Your task to perform on an android device: empty trash in google photos Image 0: 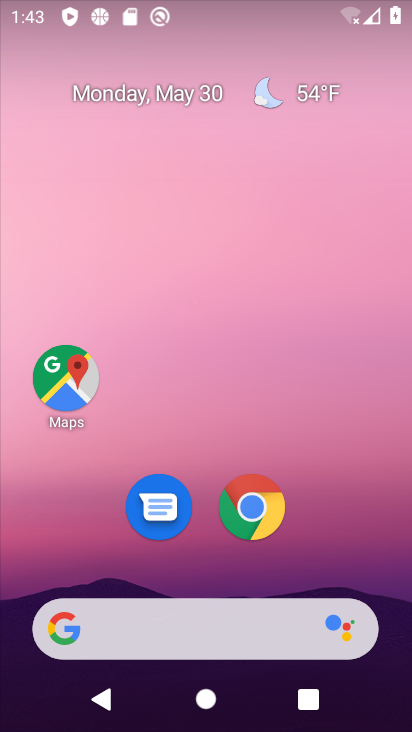
Step 0: drag from (388, 637) to (283, 10)
Your task to perform on an android device: empty trash in google photos Image 1: 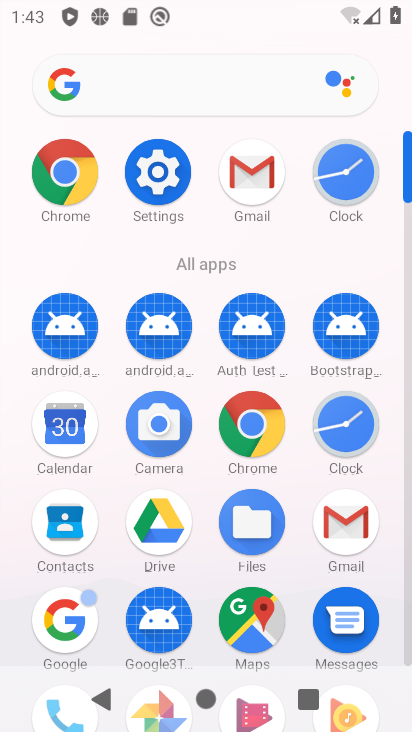
Step 1: drag from (258, 612) to (260, 174)
Your task to perform on an android device: empty trash in google photos Image 2: 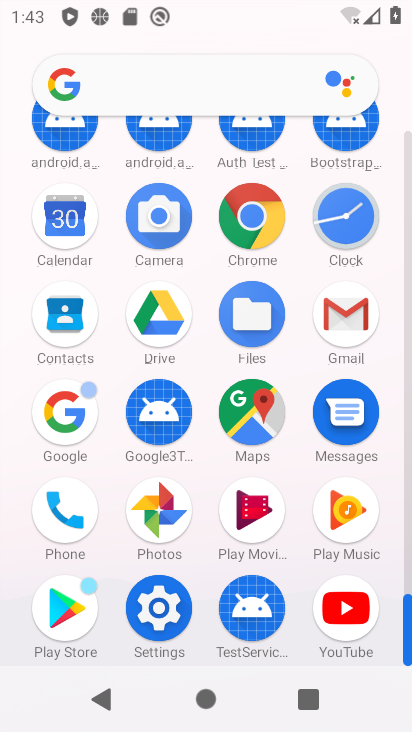
Step 2: click (157, 503)
Your task to perform on an android device: empty trash in google photos Image 3: 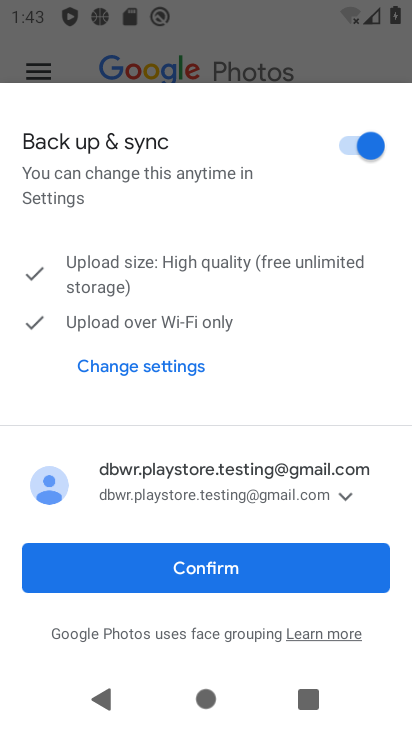
Step 3: click (236, 567)
Your task to perform on an android device: empty trash in google photos Image 4: 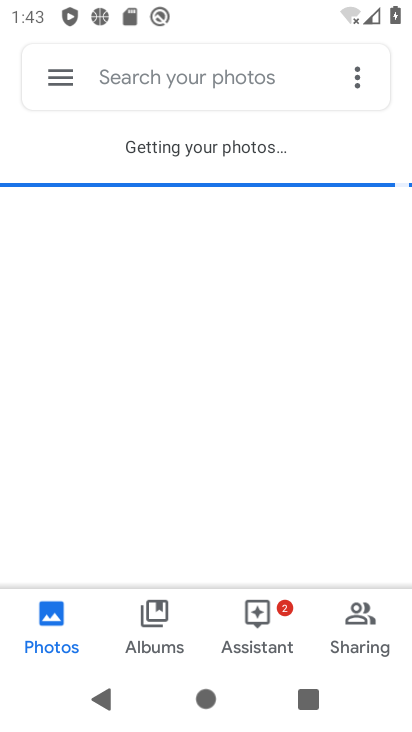
Step 4: click (51, 73)
Your task to perform on an android device: empty trash in google photos Image 5: 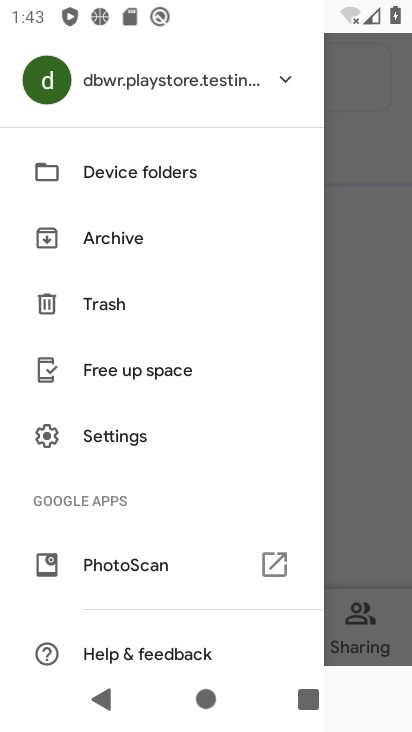
Step 5: click (146, 310)
Your task to perform on an android device: empty trash in google photos Image 6: 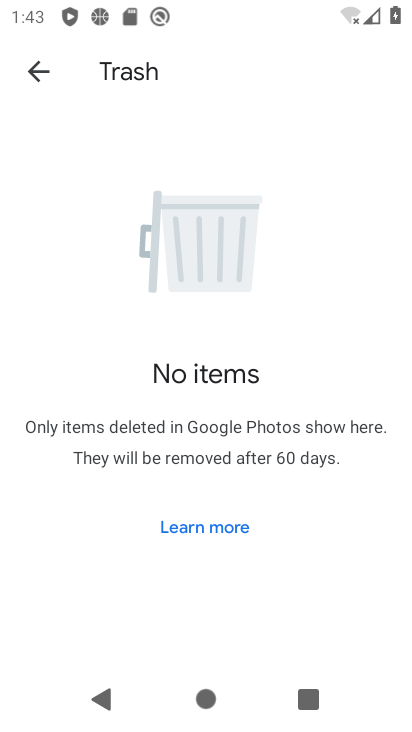
Step 6: task complete